Your task to perform on an android device: check android version Image 0: 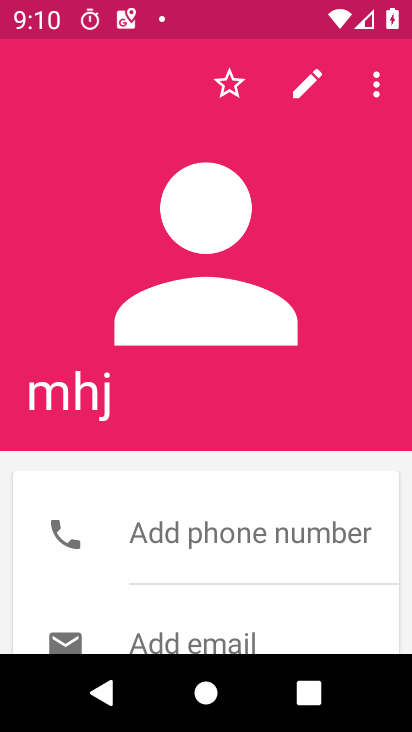
Step 0: press home button
Your task to perform on an android device: check android version Image 1: 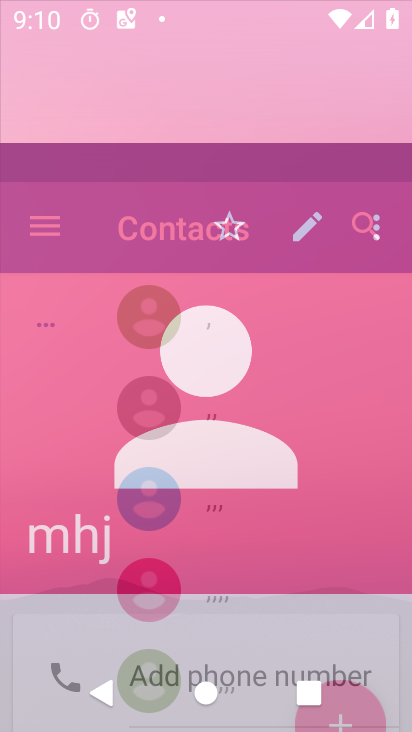
Step 1: drag from (185, 462) to (219, 112)
Your task to perform on an android device: check android version Image 2: 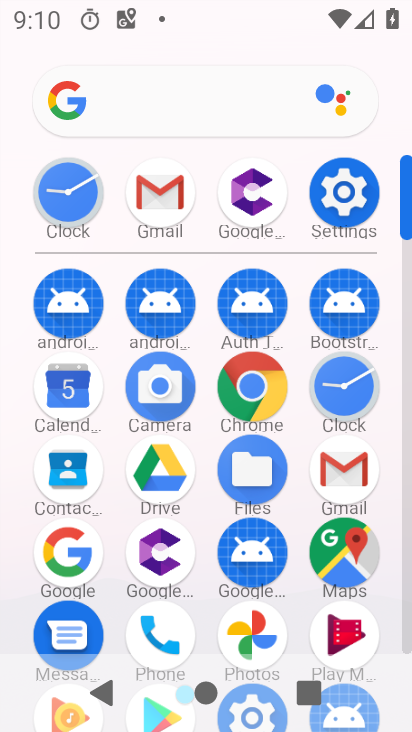
Step 2: click (349, 192)
Your task to perform on an android device: check android version Image 3: 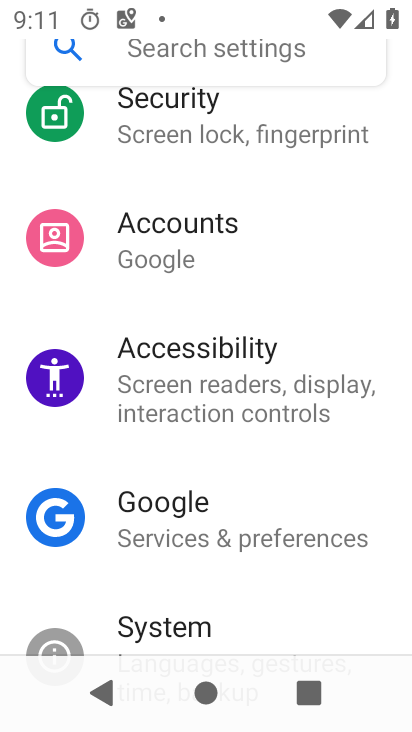
Step 3: drag from (244, 579) to (278, 244)
Your task to perform on an android device: check android version Image 4: 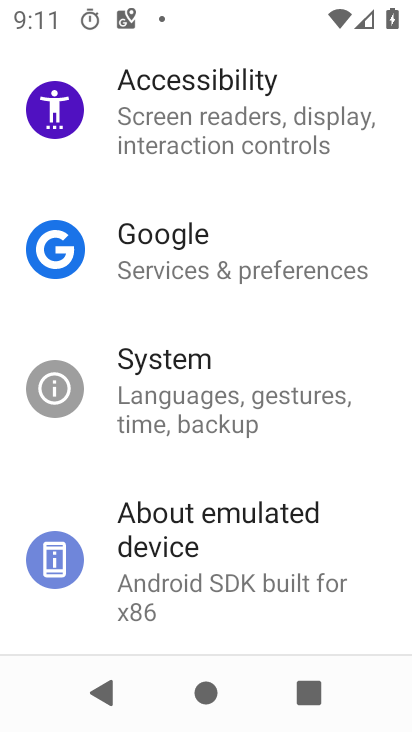
Step 4: drag from (258, 588) to (319, 272)
Your task to perform on an android device: check android version Image 5: 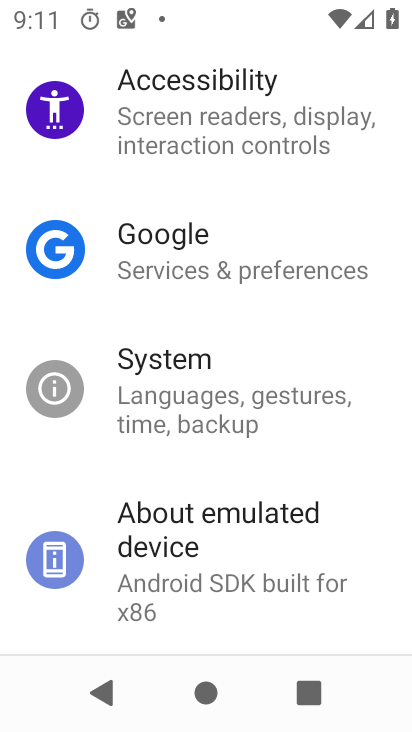
Step 5: click (216, 523)
Your task to perform on an android device: check android version Image 6: 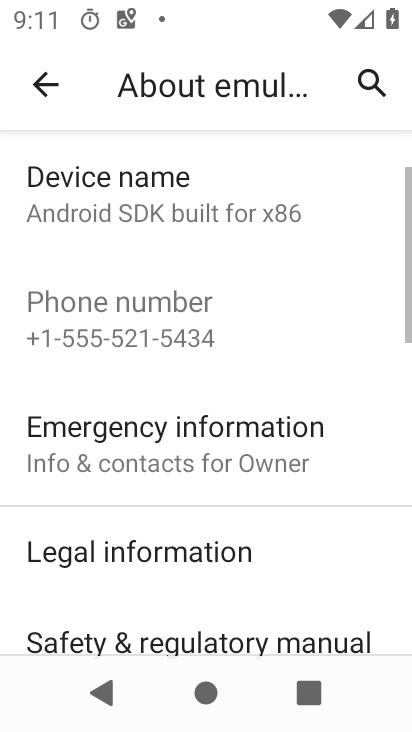
Step 6: drag from (200, 552) to (263, 86)
Your task to perform on an android device: check android version Image 7: 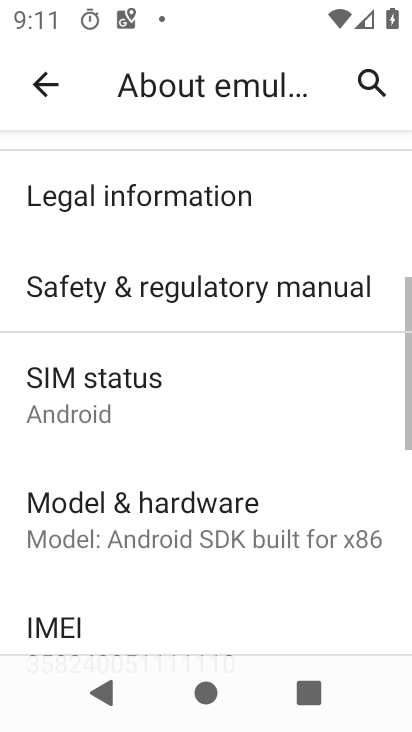
Step 7: drag from (196, 521) to (314, 91)
Your task to perform on an android device: check android version Image 8: 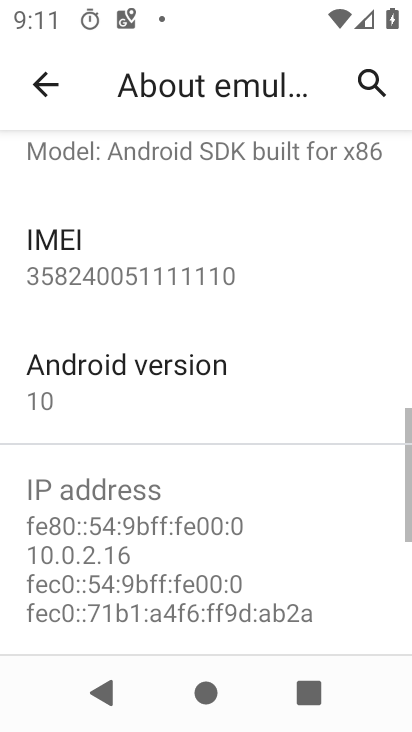
Step 8: click (119, 386)
Your task to perform on an android device: check android version Image 9: 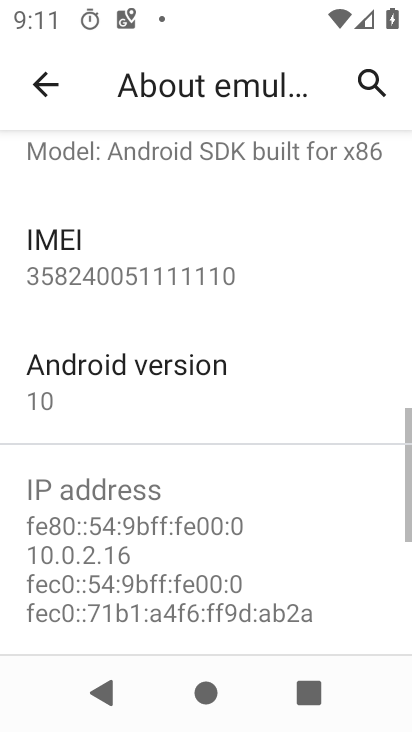
Step 9: click (116, 384)
Your task to perform on an android device: check android version Image 10: 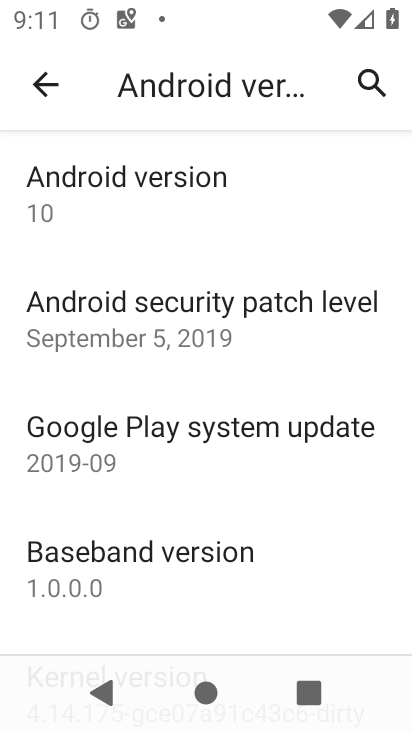
Step 10: drag from (170, 608) to (280, 15)
Your task to perform on an android device: check android version Image 11: 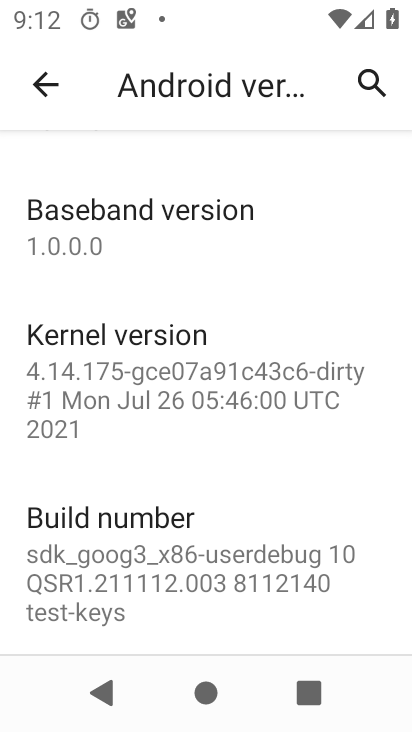
Step 11: drag from (191, 231) to (412, 644)
Your task to perform on an android device: check android version Image 12: 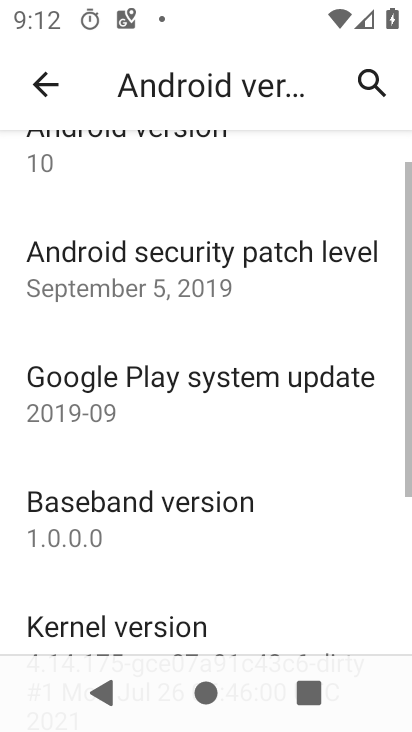
Step 12: click (224, 197)
Your task to perform on an android device: check android version Image 13: 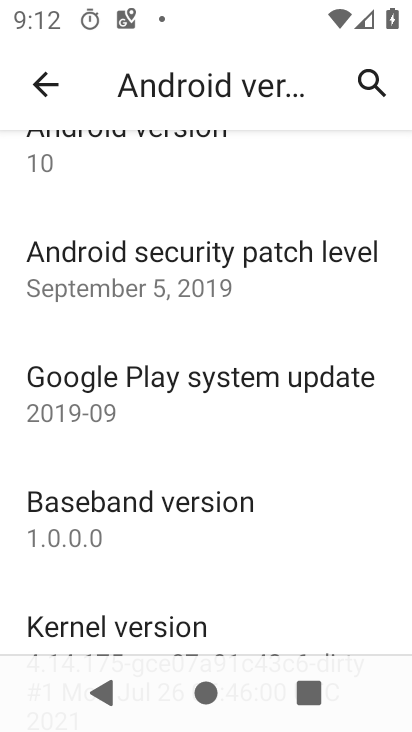
Step 13: task complete